Your task to perform on an android device: Go to calendar. Show me events next week Image 0: 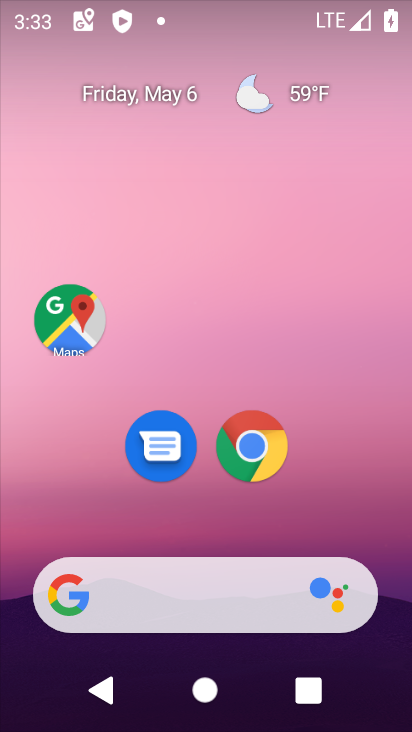
Step 0: drag from (284, 483) to (344, 129)
Your task to perform on an android device: Go to calendar. Show me events next week Image 1: 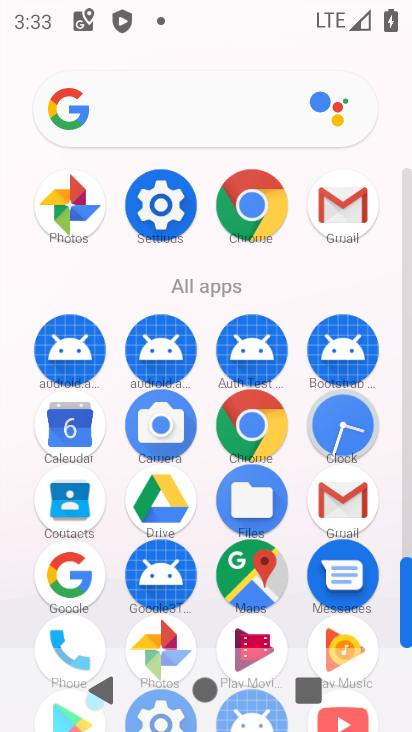
Step 1: click (60, 447)
Your task to perform on an android device: Go to calendar. Show me events next week Image 2: 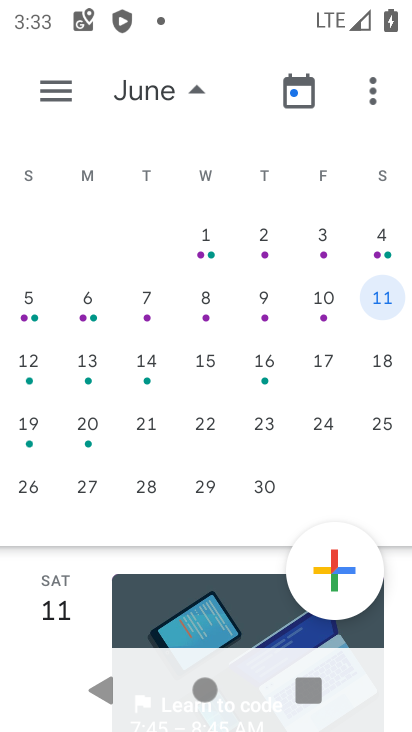
Step 2: drag from (115, 340) to (350, 323)
Your task to perform on an android device: Go to calendar. Show me events next week Image 3: 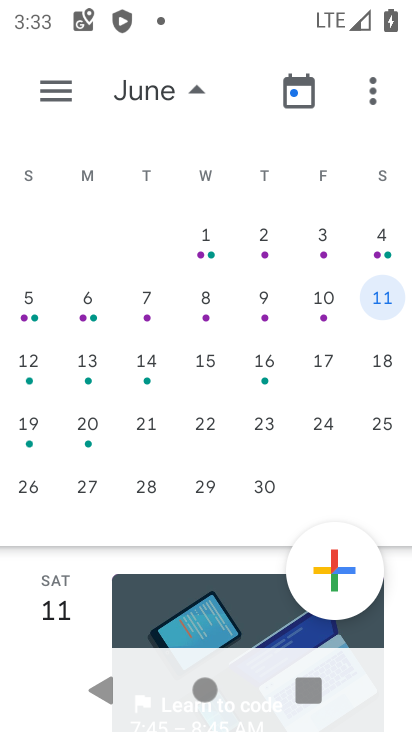
Step 3: drag from (59, 409) to (388, 422)
Your task to perform on an android device: Go to calendar. Show me events next week Image 4: 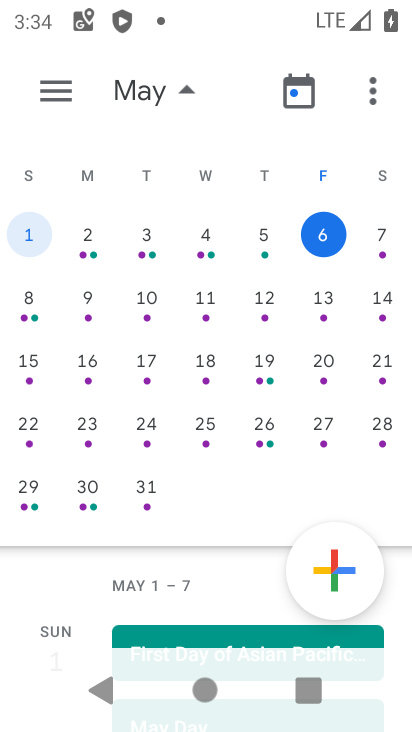
Step 4: drag from (187, 389) to (410, 431)
Your task to perform on an android device: Go to calendar. Show me events next week Image 5: 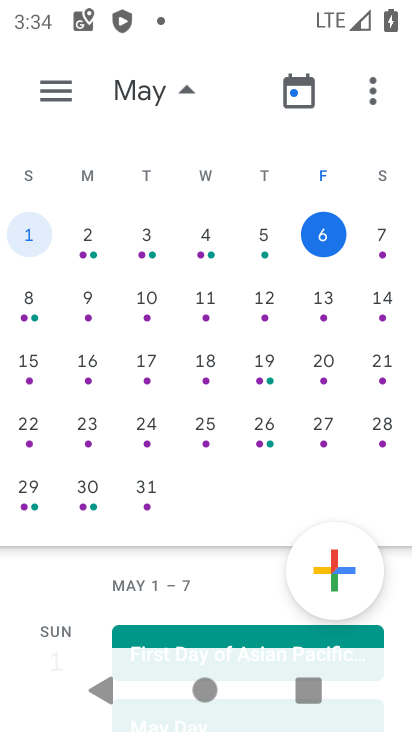
Step 5: click (19, 310)
Your task to perform on an android device: Go to calendar. Show me events next week Image 6: 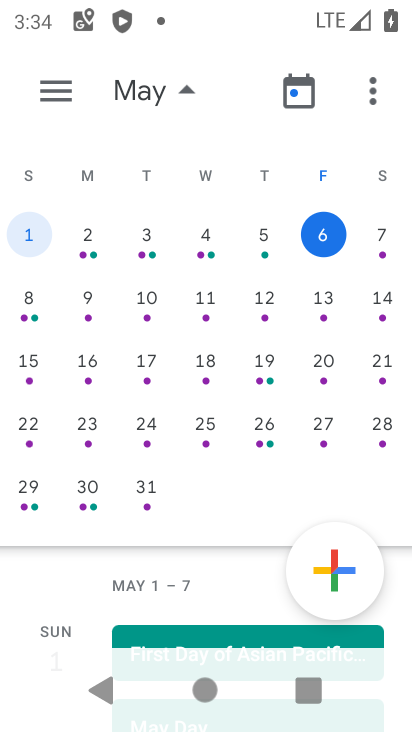
Step 6: click (27, 318)
Your task to perform on an android device: Go to calendar. Show me events next week Image 7: 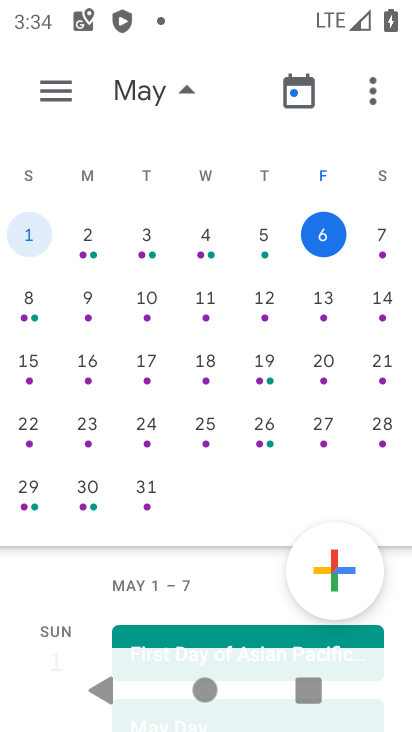
Step 7: click (95, 311)
Your task to perform on an android device: Go to calendar. Show me events next week Image 8: 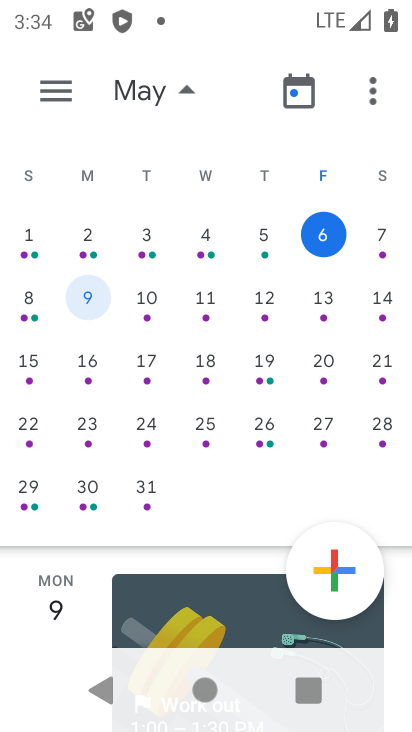
Step 8: click (153, 315)
Your task to perform on an android device: Go to calendar. Show me events next week Image 9: 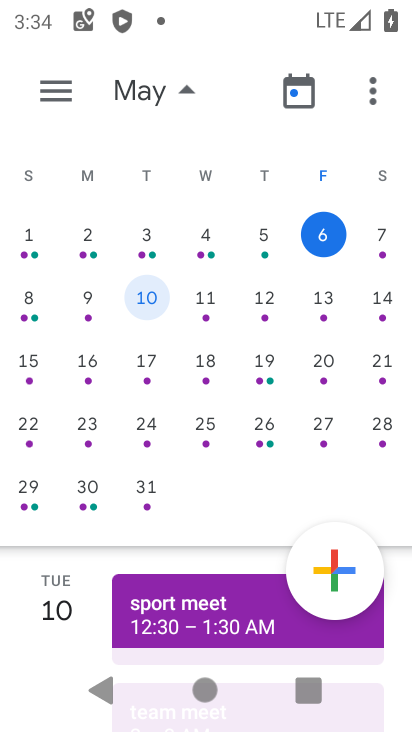
Step 9: click (211, 319)
Your task to perform on an android device: Go to calendar. Show me events next week Image 10: 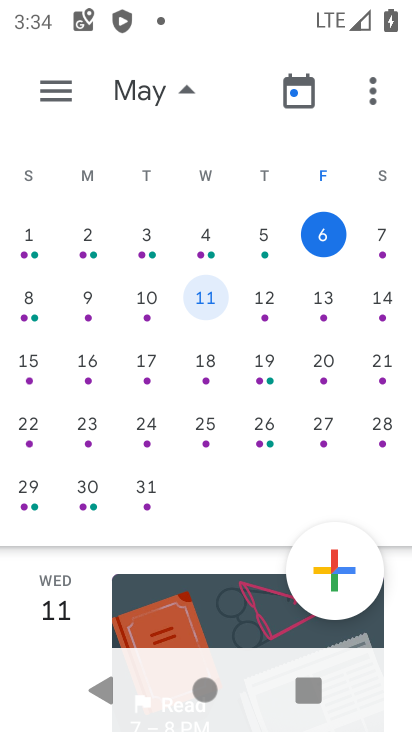
Step 10: click (261, 321)
Your task to perform on an android device: Go to calendar. Show me events next week Image 11: 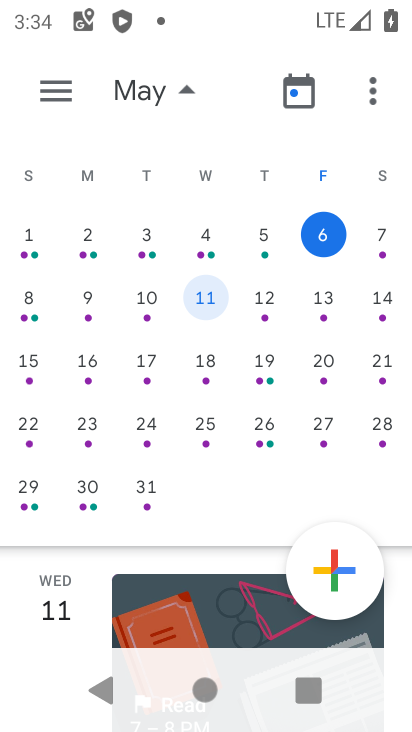
Step 11: click (263, 306)
Your task to perform on an android device: Go to calendar. Show me events next week Image 12: 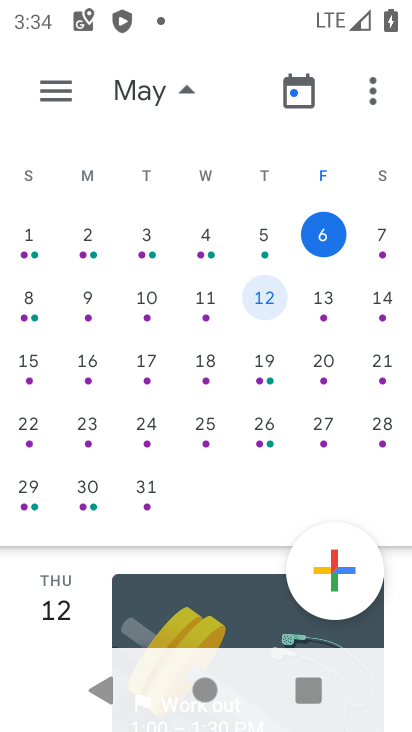
Step 12: click (323, 311)
Your task to perform on an android device: Go to calendar. Show me events next week Image 13: 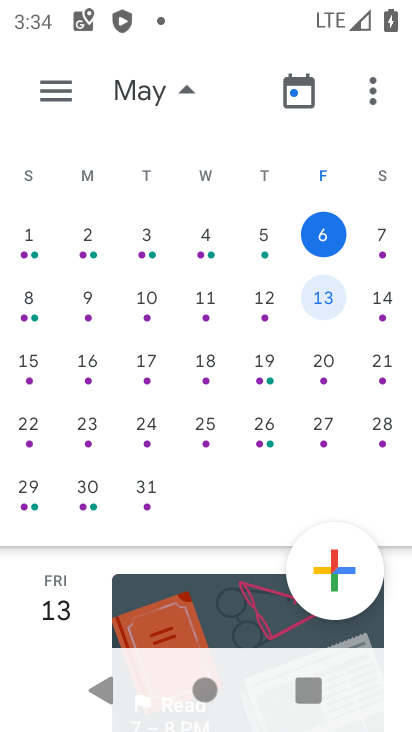
Step 13: click (386, 303)
Your task to perform on an android device: Go to calendar. Show me events next week Image 14: 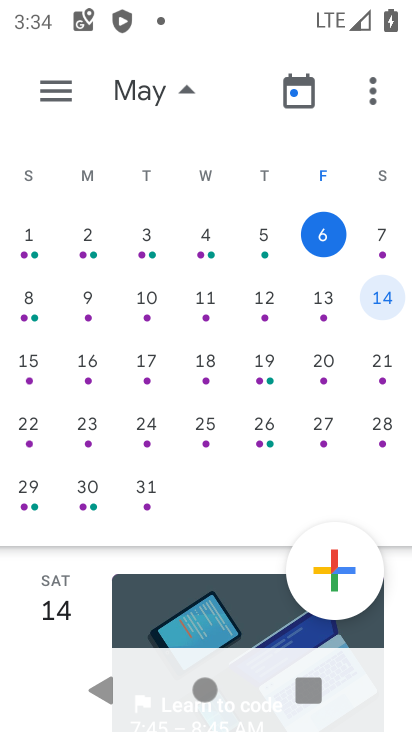
Step 14: task complete